Your task to perform on an android device: Open eBay Image 0: 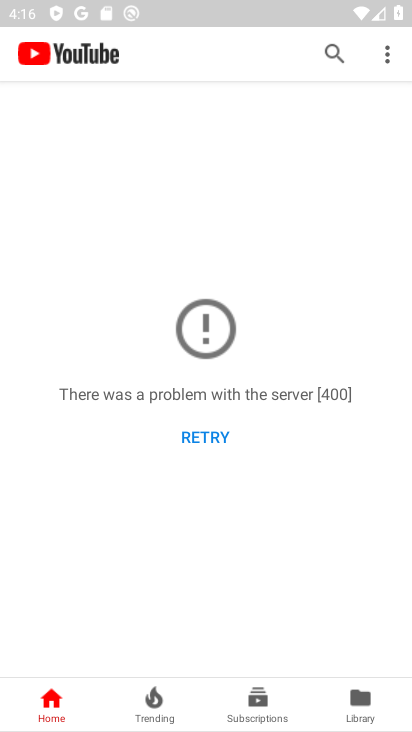
Step 0: press home button
Your task to perform on an android device: Open eBay Image 1: 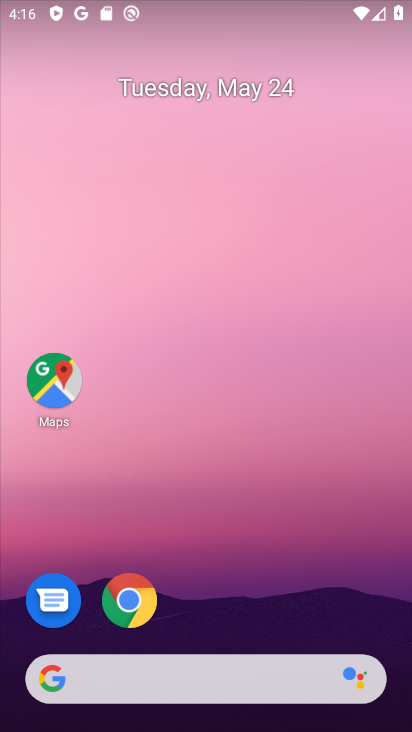
Step 1: click (116, 609)
Your task to perform on an android device: Open eBay Image 2: 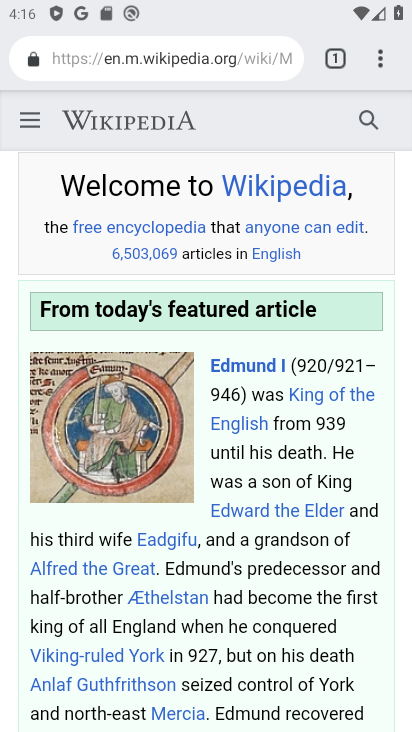
Step 2: drag from (394, 52) to (330, 99)
Your task to perform on an android device: Open eBay Image 3: 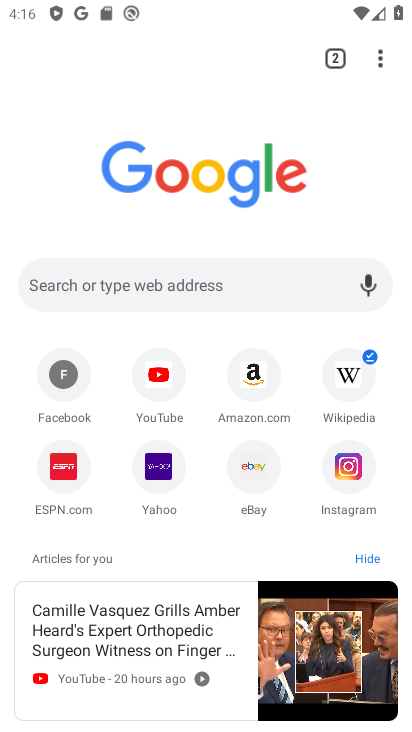
Step 3: click (246, 487)
Your task to perform on an android device: Open eBay Image 4: 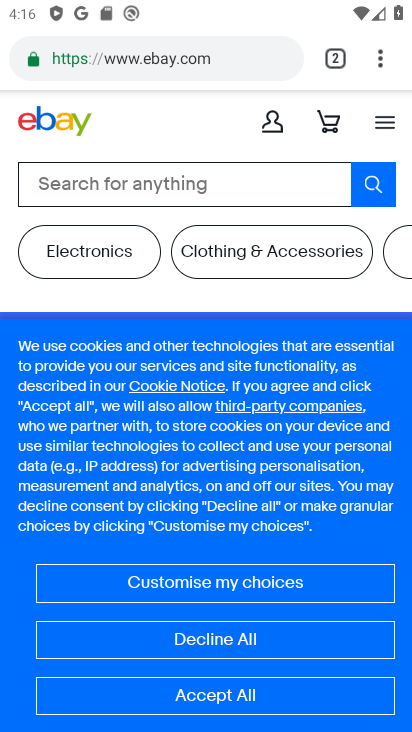
Step 4: task complete